Your task to perform on an android device: toggle priority inbox in the gmail app Image 0: 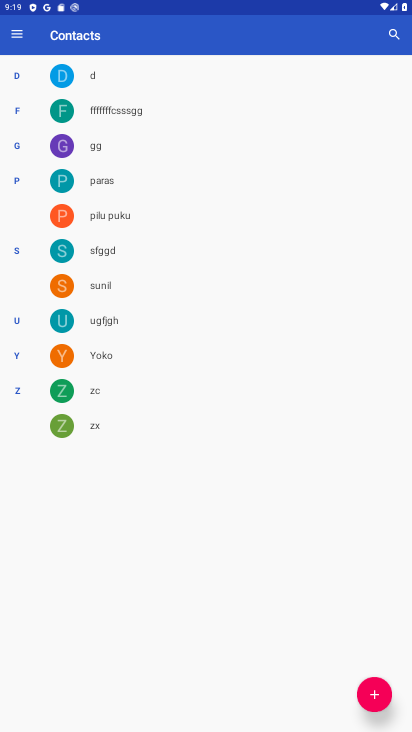
Step 0: press home button
Your task to perform on an android device: toggle priority inbox in the gmail app Image 1: 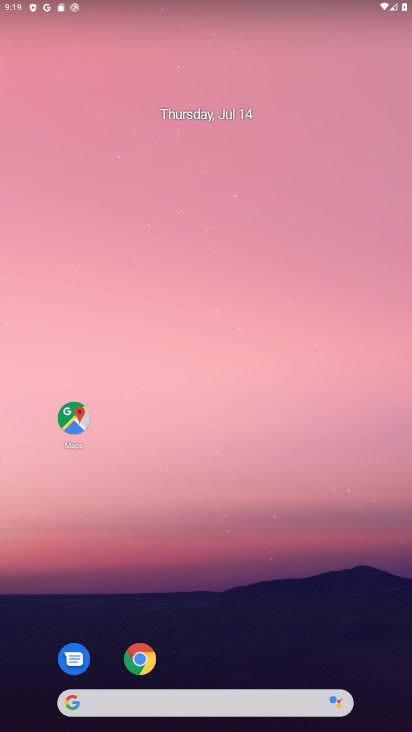
Step 1: drag from (325, 645) to (272, 0)
Your task to perform on an android device: toggle priority inbox in the gmail app Image 2: 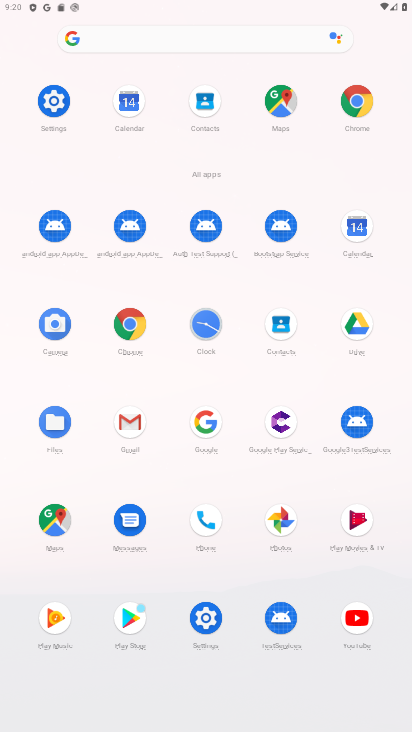
Step 2: click (126, 426)
Your task to perform on an android device: toggle priority inbox in the gmail app Image 3: 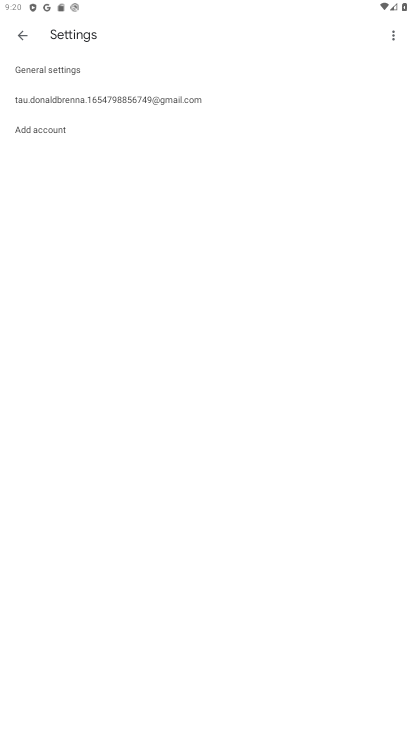
Step 3: click (174, 98)
Your task to perform on an android device: toggle priority inbox in the gmail app Image 4: 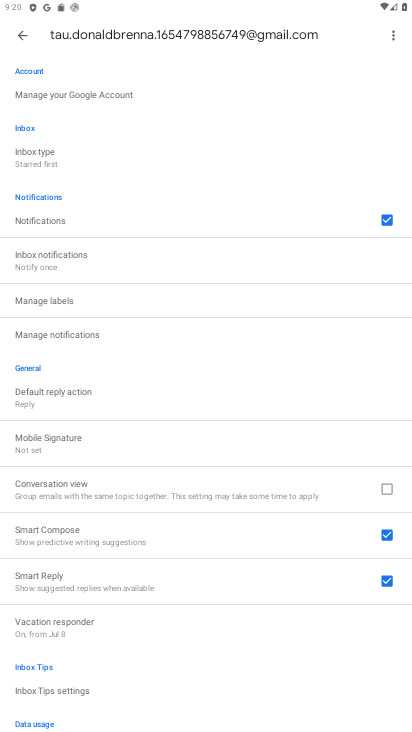
Step 4: click (110, 157)
Your task to perform on an android device: toggle priority inbox in the gmail app Image 5: 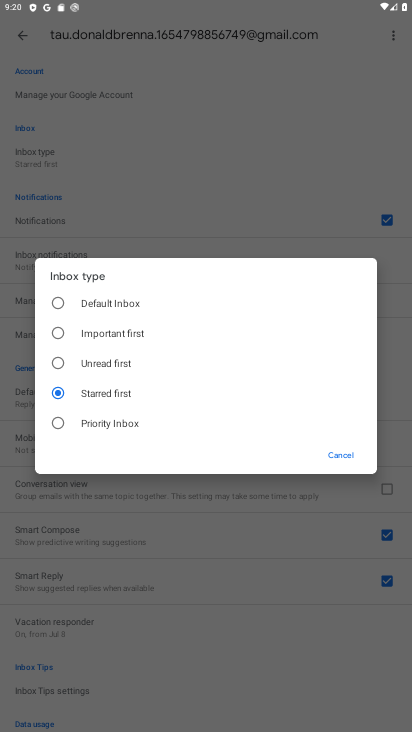
Step 5: click (120, 428)
Your task to perform on an android device: toggle priority inbox in the gmail app Image 6: 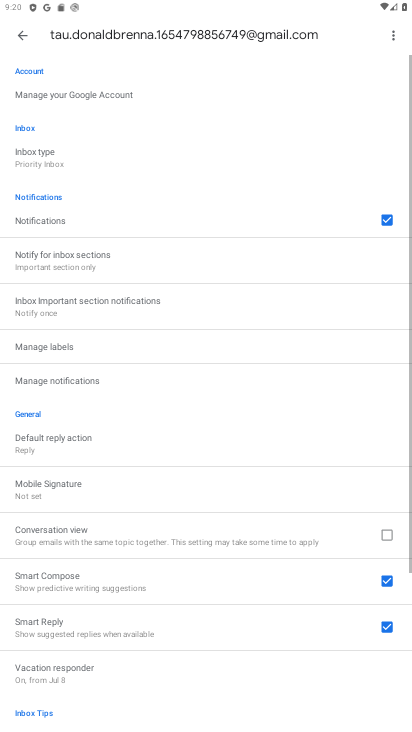
Step 6: task complete